Your task to perform on an android device: Set the phone to "Do not disturb". Image 0: 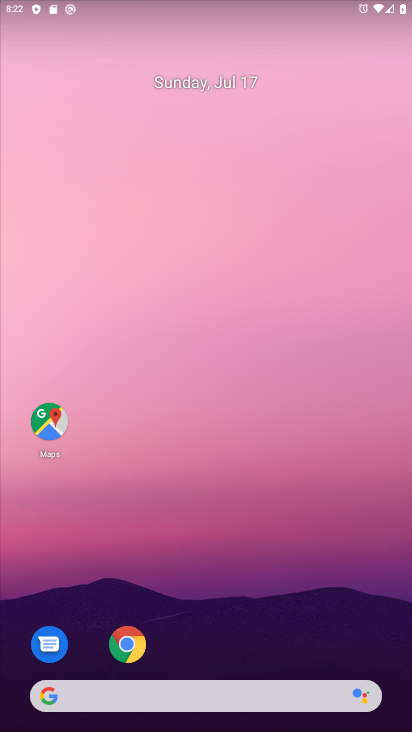
Step 0: press home button
Your task to perform on an android device: Set the phone to "Do not disturb". Image 1: 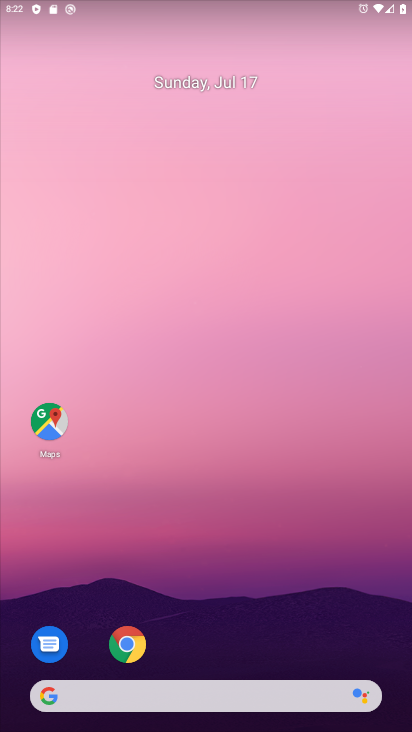
Step 1: click (140, 20)
Your task to perform on an android device: Set the phone to "Do not disturb". Image 2: 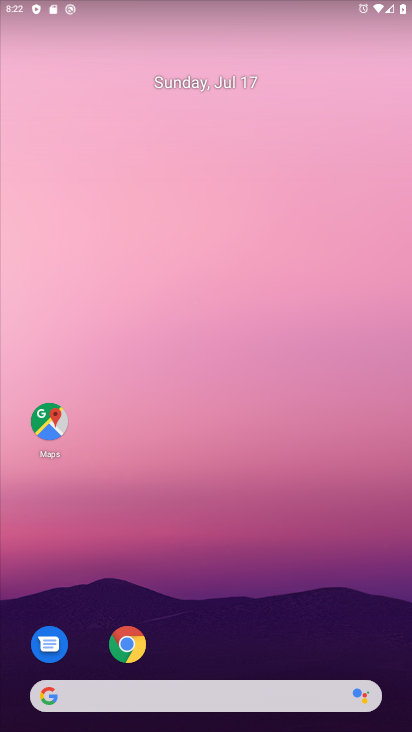
Step 2: drag from (227, 654) to (221, 53)
Your task to perform on an android device: Set the phone to "Do not disturb". Image 3: 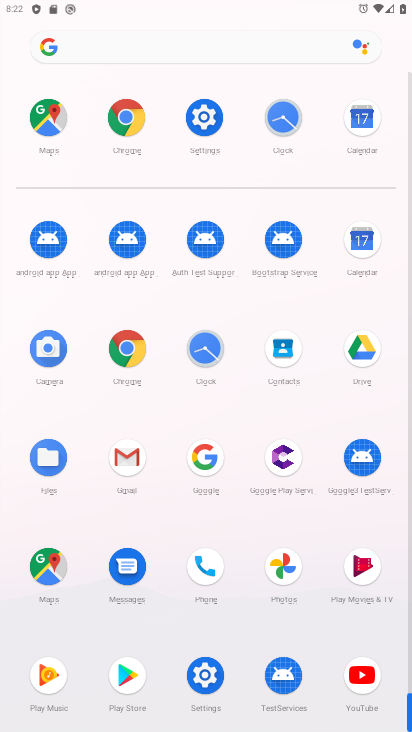
Step 3: click (206, 132)
Your task to perform on an android device: Set the phone to "Do not disturb". Image 4: 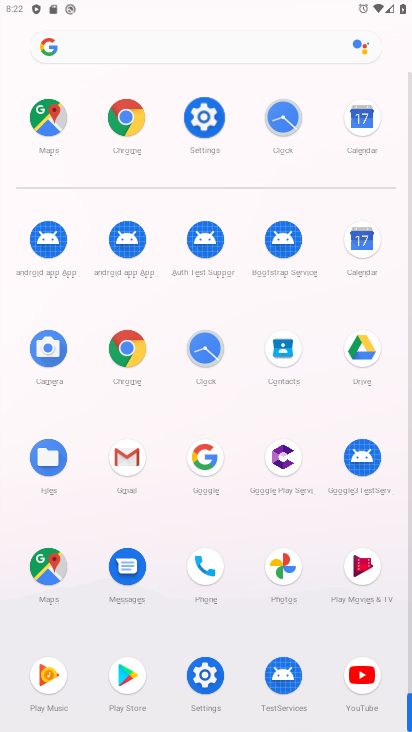
Step 4: click (207, 130)
Your task to perform on an android device: Set the phone to "Do not disturb". Image 5: 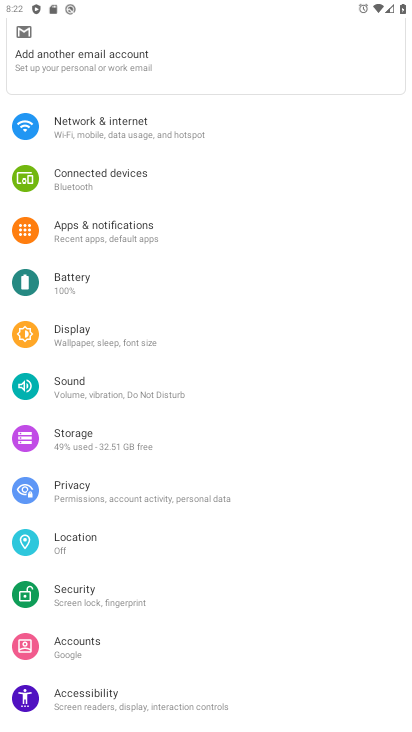
Step 5: click (90, 235)
Your task to perform on an android device: Set the phone to "Do not disturb". Image 6: 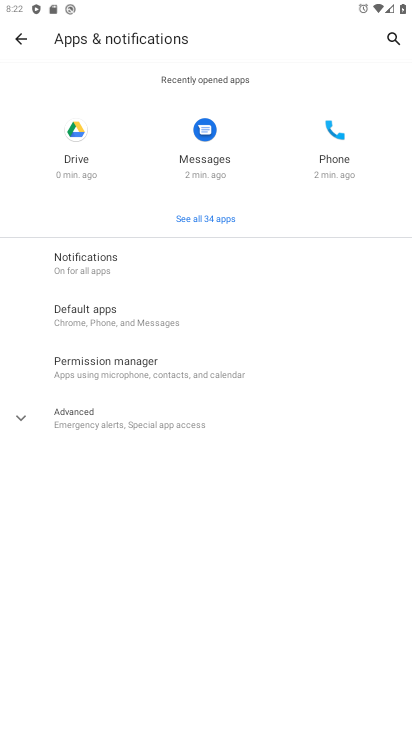
Step 6: click (19, 40)
Your task to perform on an android device: Set the phone to "Do not disturb". Image 7: 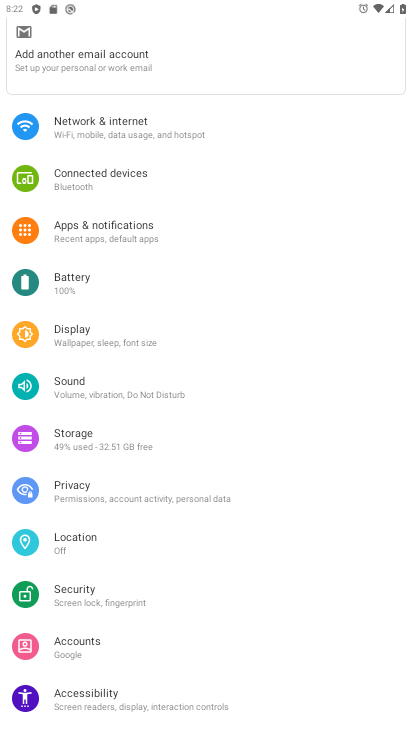
Step 7: click (71, 390)
Your task to perform on an android device: Set the phone to "Do not disturb". Image 8: 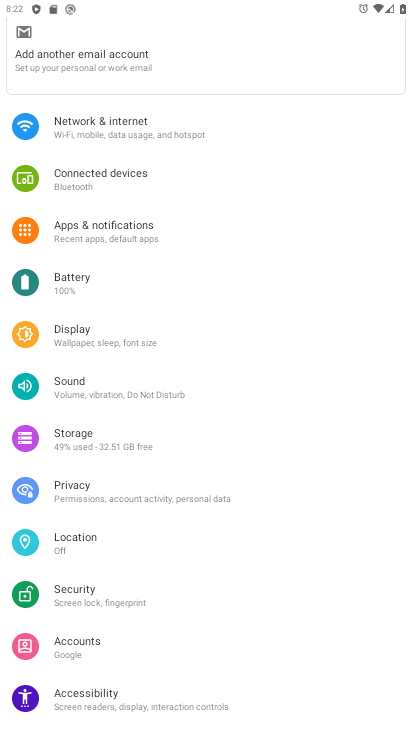
Step 8: click (71, 392)
Your task to perform on an android device: Set the phone to "Do not disturb". Image 9: 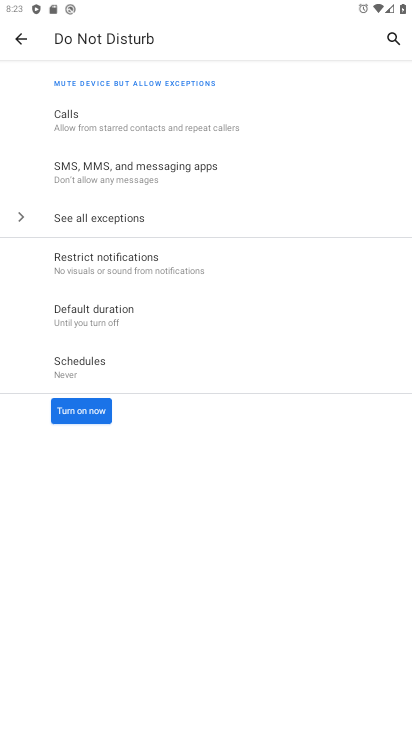
Step 9: click (94, 408)
Your task to perform on an android device: Set the phone to "Do not disturb". Image 10: 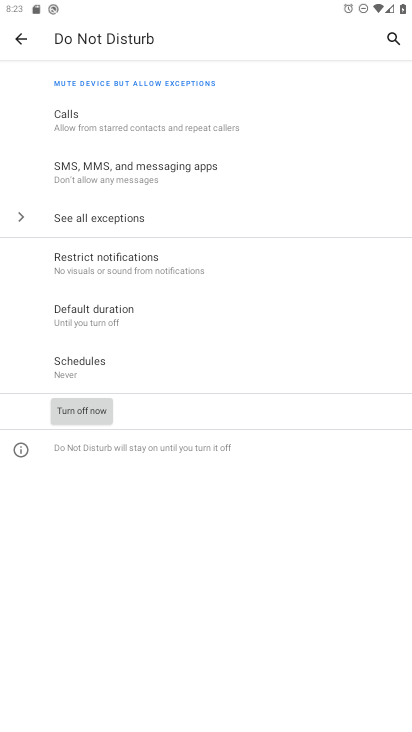
Step 10: task complete